Your task to perform on an android device: Do I have any events this weekend? Image 0: 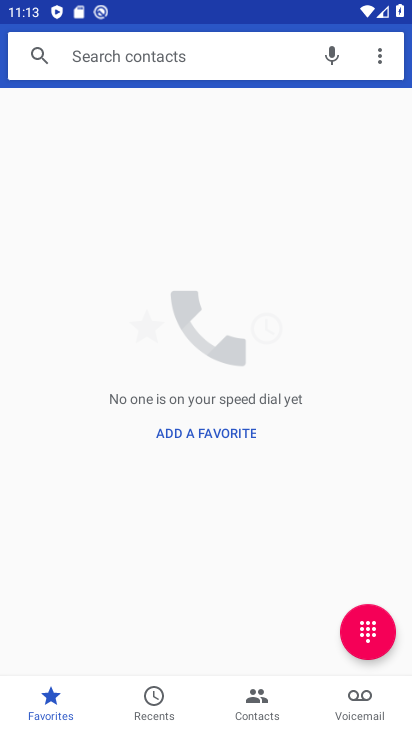
Step 0: press home button
Your task to perform on an android device: Do I have any events this weekend? Image 1: 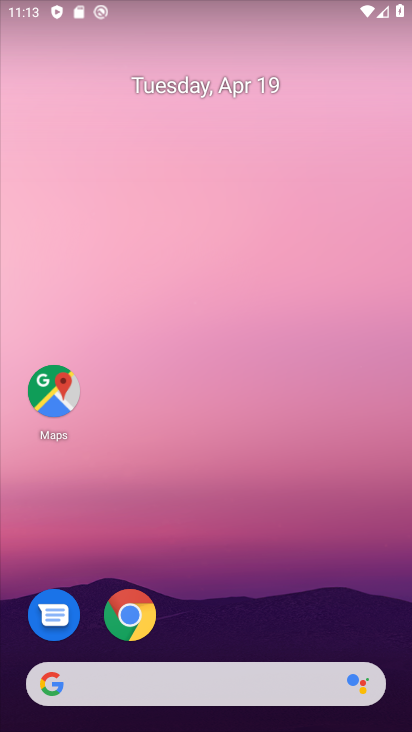
Step 1: drag from (212, 668) to (203, 118)
Your task to perform on an android device: Do I have any events this weekend? Image 2: 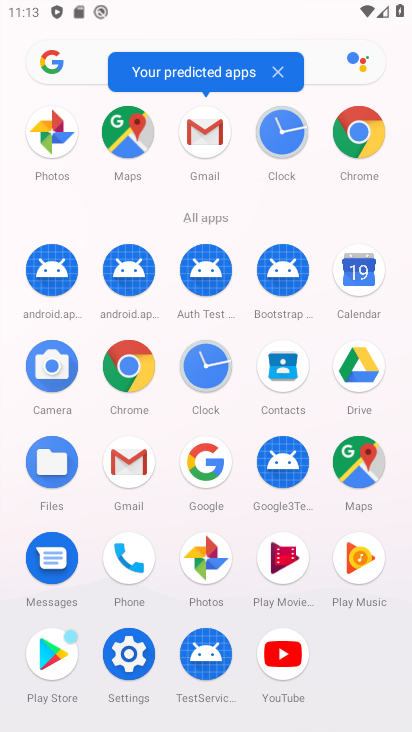
Step 2: click (359, 277)
Your task to perform on an android device: Do I have any events this weekend? Image 3: 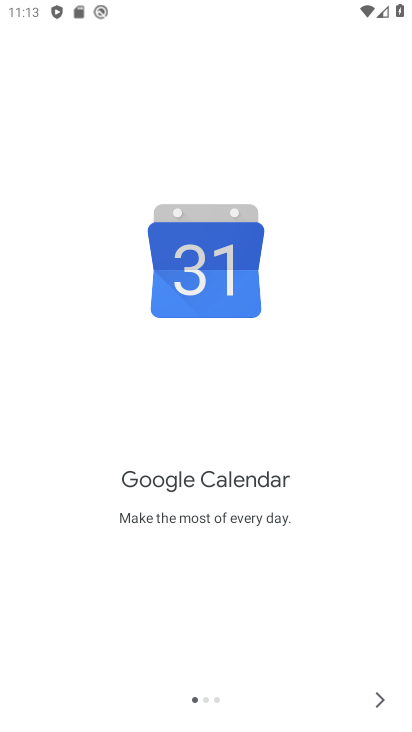
Step 3: click (387, 704)
Your task to perform on an android device: Do I have any events this weekend? Image 4: 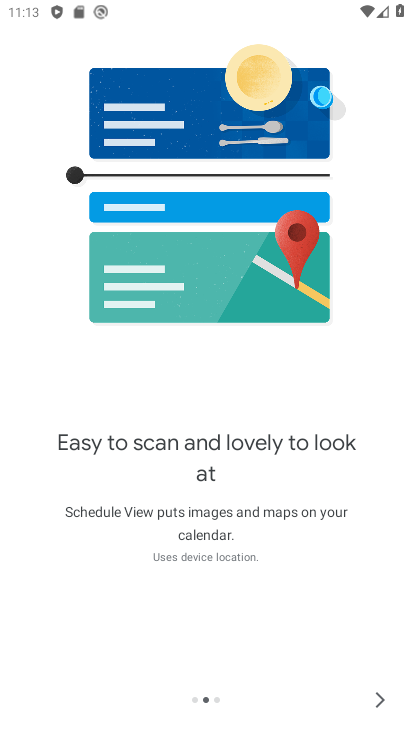
Step 4: click (379, 704)
Your task to perform on an android device: Do I have any events this weekend? Image 5: 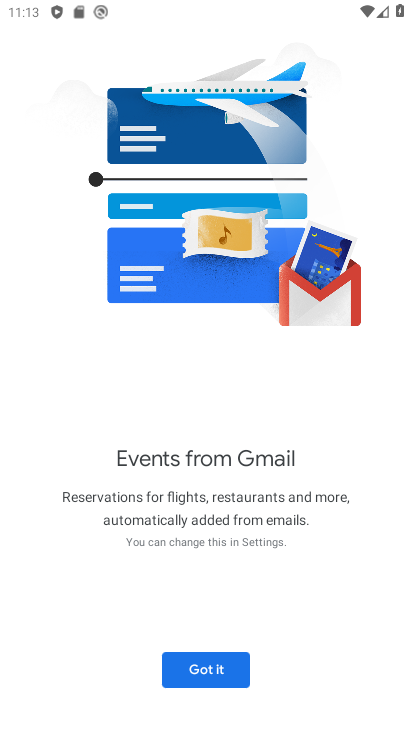
Step 5: click (219, 675)
Your task to perform on an android device: Do I have any events this weekend? Image 6: 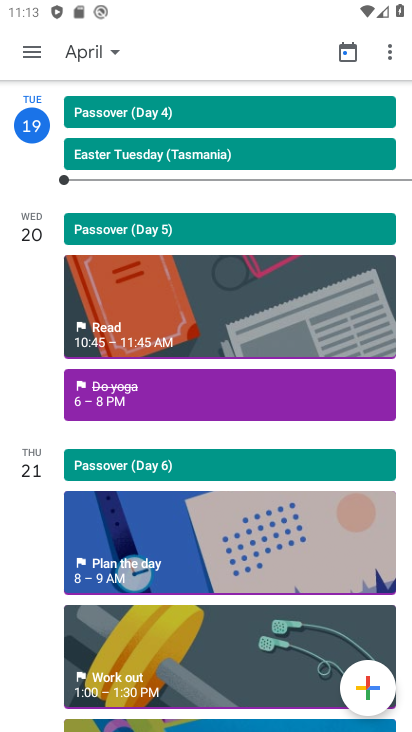
Step 6: click (36, 56)
Your task to perform on an android device: Do I have any events this weekend? Image 7: 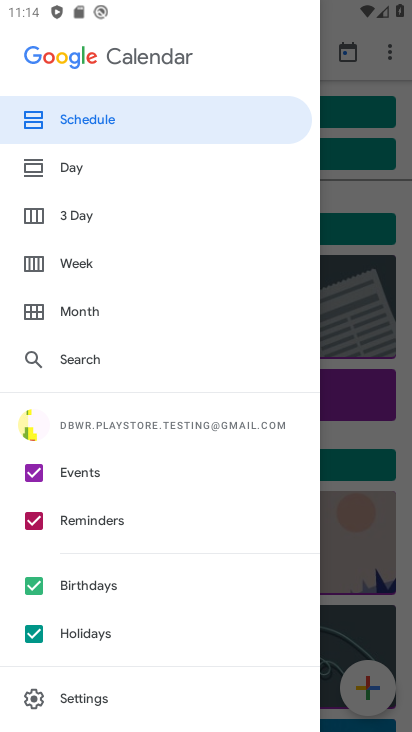
Step 7: click (73, 257)
Your task to perform on an android device: Do I have any events this weekend? Image 8: 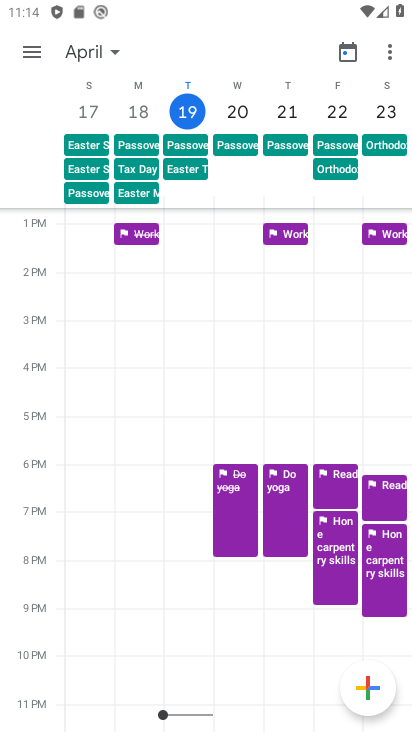
Step 8: task complete